Your task to perform on an android device: manage bookmarks in the chrome app Image 0: 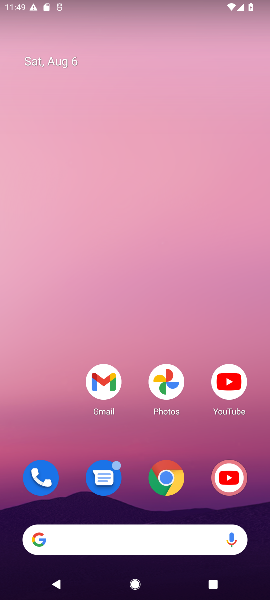
Step 0: click (180, 475)
Your task to perform on an android device: manage bookmarks in the chrome app Image 1: 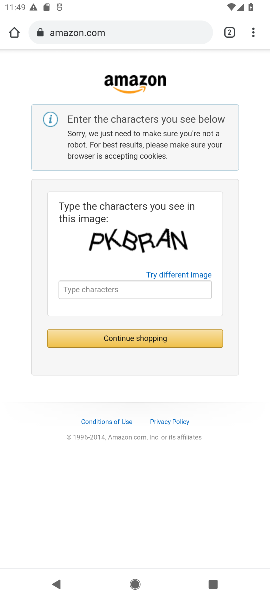
Step 1: click (251, 36)
Your task to perform on an android device: manage bookmarks in the chrome app Image 2: 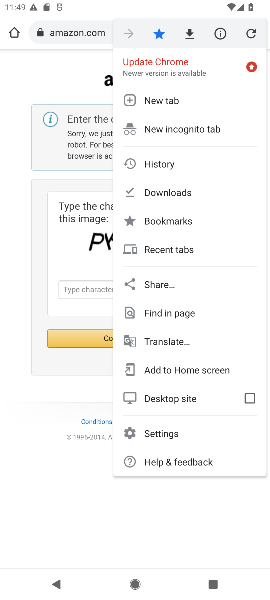
Step 2: click (167, 222)
Your task to perform on an android device: manage bookmarks in the chrome app Image 3: 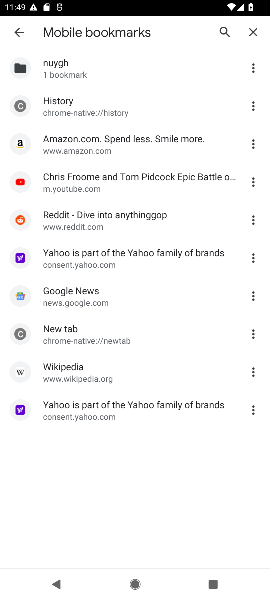
Step 3: click (89, 265)
Your task to perform on an android device: manage bookmarks in the chrome app Image 4: 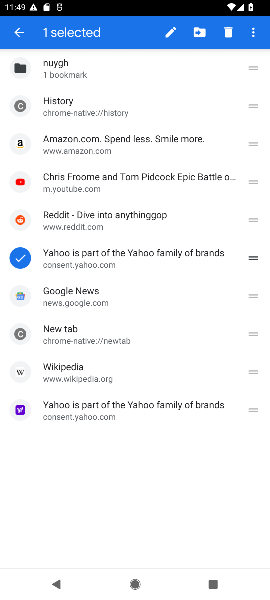
Step 4: click (227, 30)
Your task to perform on an android device: manage bookmarks in the chrome app Image 5: 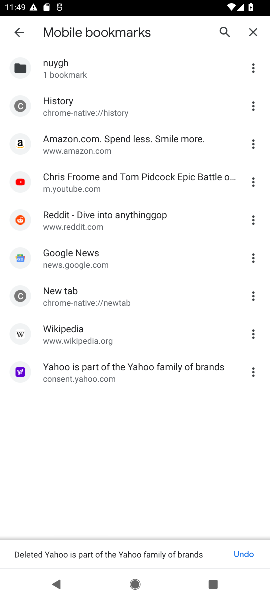
Step 5: task complete